Your task to perform on an android device: turn on sleep mode Image 0: 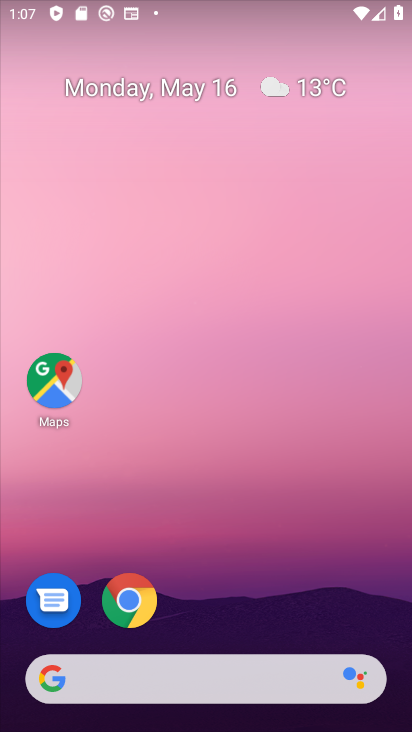
Step 0: drag from (229, 623) to (47, 63)
Your task to perform on an android device: turn on sleep mode Image 1: 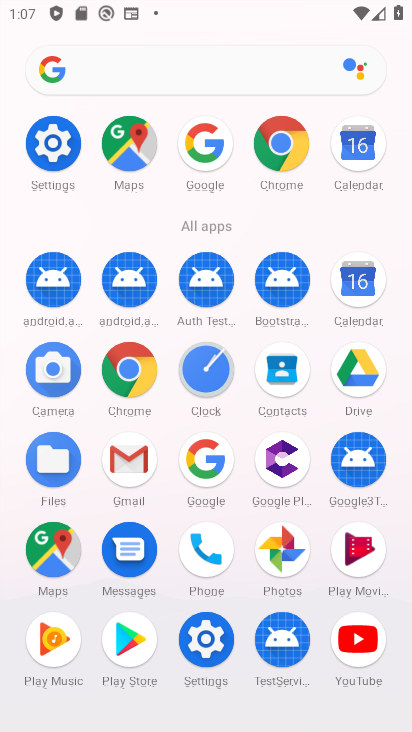
Step 1: click (204, 634)
Your task to perform on an android device: turn on sleep mode Image 2: 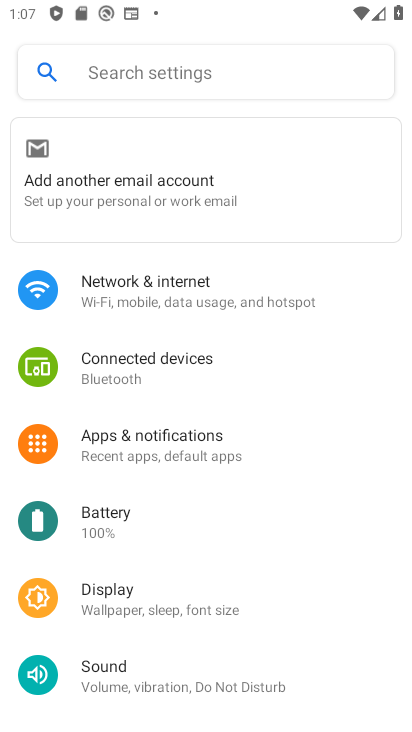
Step 2: click (173, 602)
Your task to perform on an android device: turn on sleep mode Image 3: 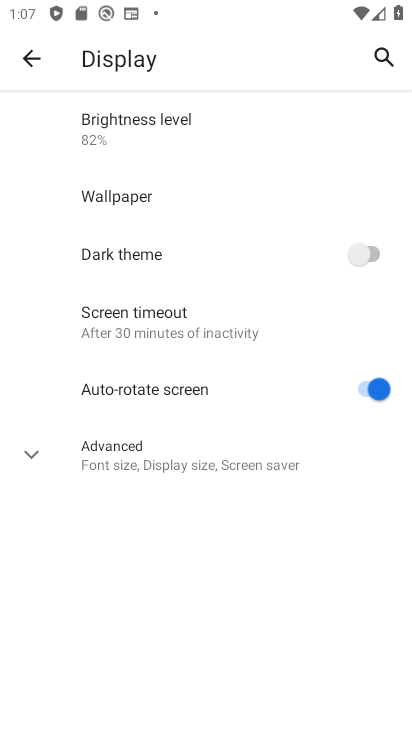
Step 3: click (93, 495)
Your task to perform on an android device: turn on sleep mode Image 4: 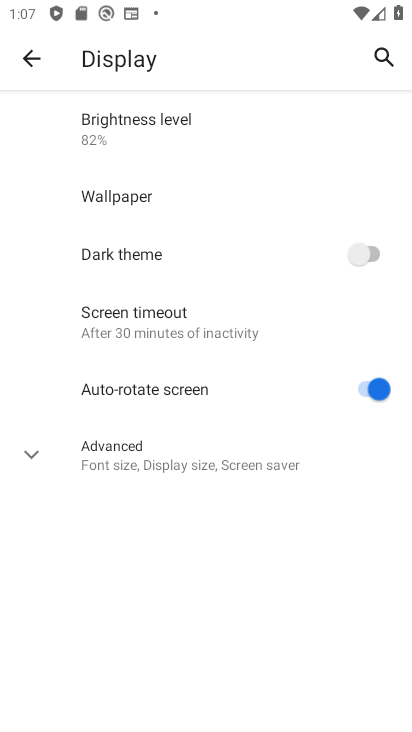
Step 4: click (83, 460)
Your task to perform on an android device: turn on sleep mode Image 5: 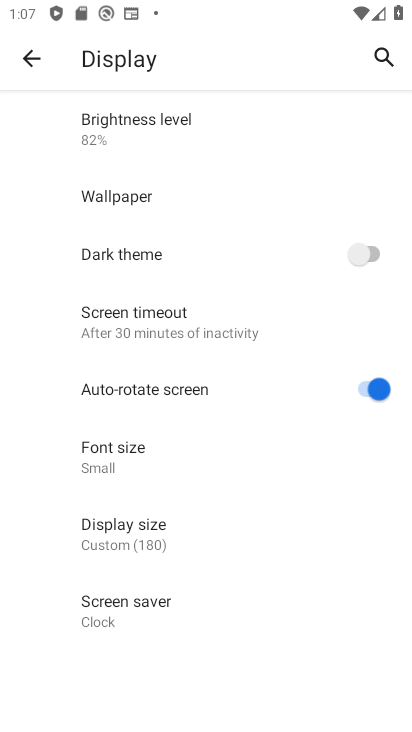
Step 5: task complete